Your task to perform on an android device: turn off wifi Image 0: 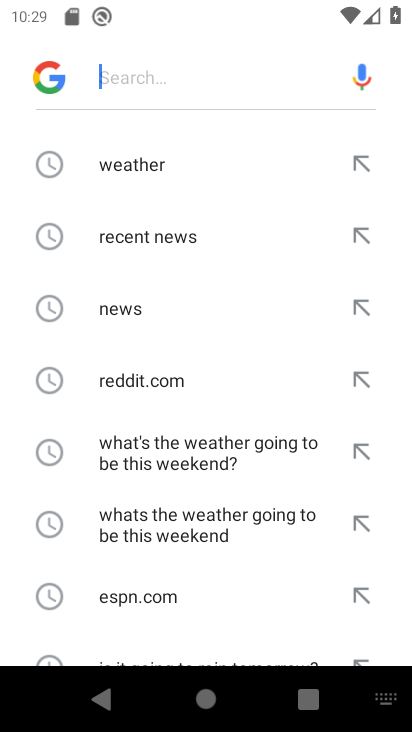
Step 0: press home button
Your task to perform on an android device: turn off wifi Image 1: 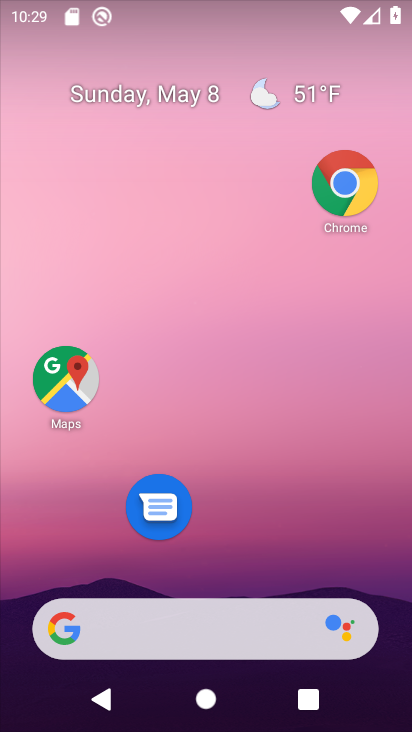
Step 1: drag from (222, 11) to (208, 662)
Your task to perform on an android device: turn off wifi Image 2: 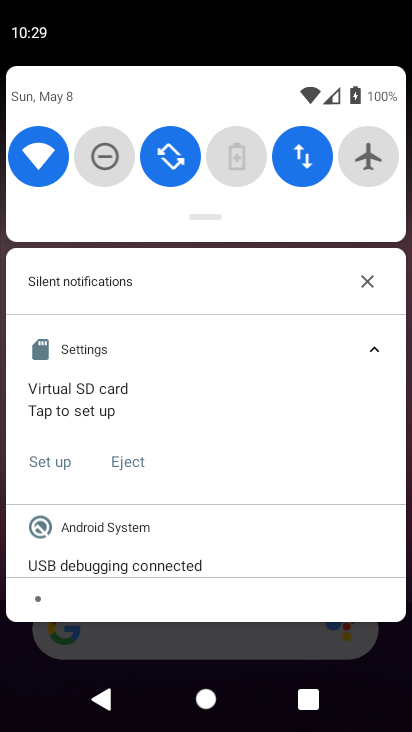
Step 2: click (27, 153)
Your task to perform on an android device: turn off wifi Image 3: 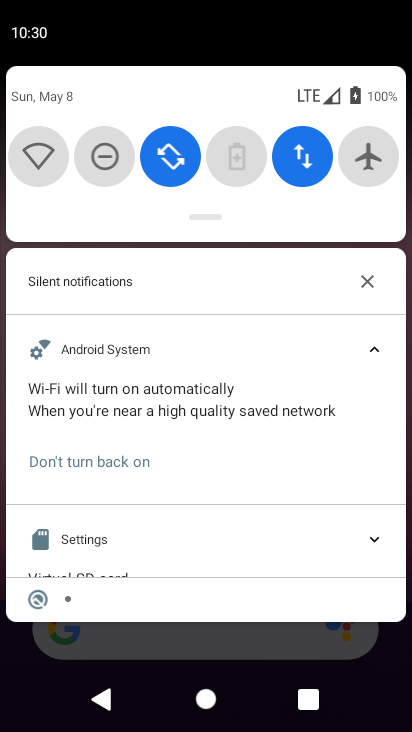
Step 3: task complete